Your task to perform on an android device: Open the stopwatch Image 0: 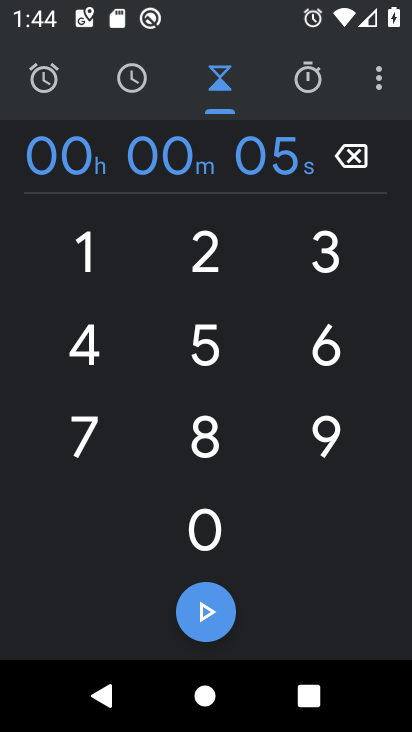
Step 0: press home button
Your task to perform on an android device: Open the stopwatch Image 1: 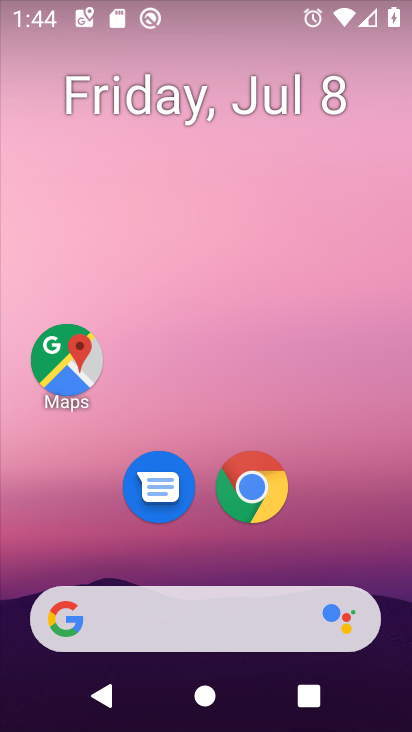
Step 1: drag from (371, 564) to (364, 158)
Your task to perform on an android device: Open the stopwatch Image 2: 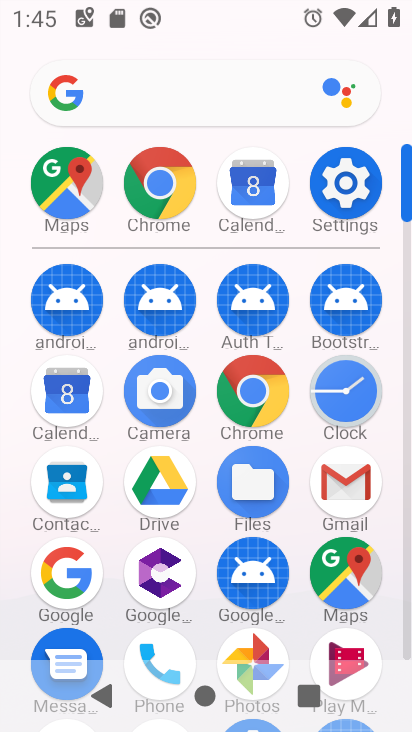
Step 2: click (346, 407)
Your task to perform on an android device: Open the stopwatch Image 3: 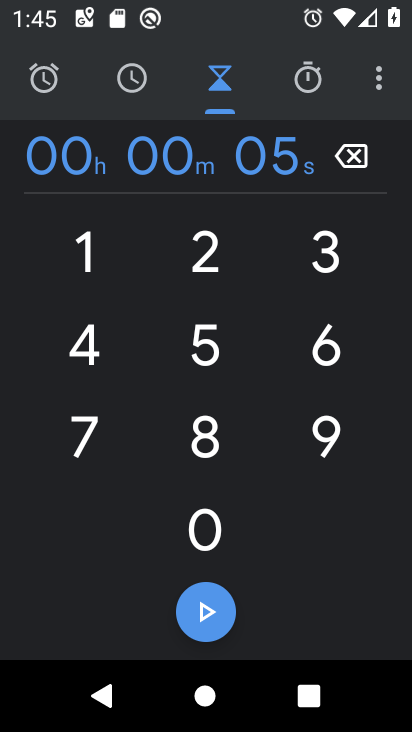
Step 3: click (309, 100)
Your task to perform on an android device: Open the stopwatch Image 4: 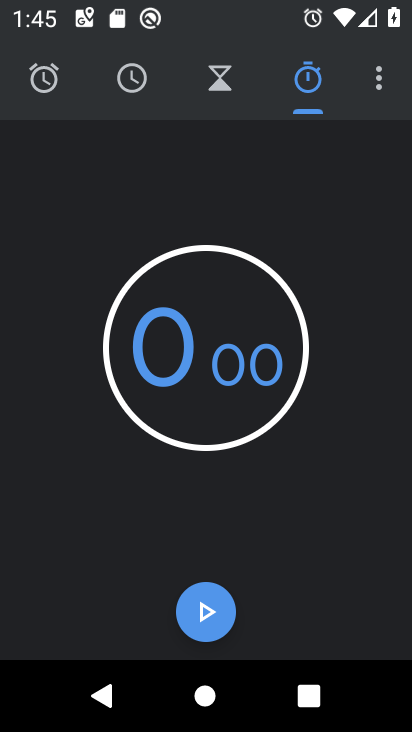
Step 4: task complete